Your task to perform on an android device: turn on the 12-hour format for clock Image 0: 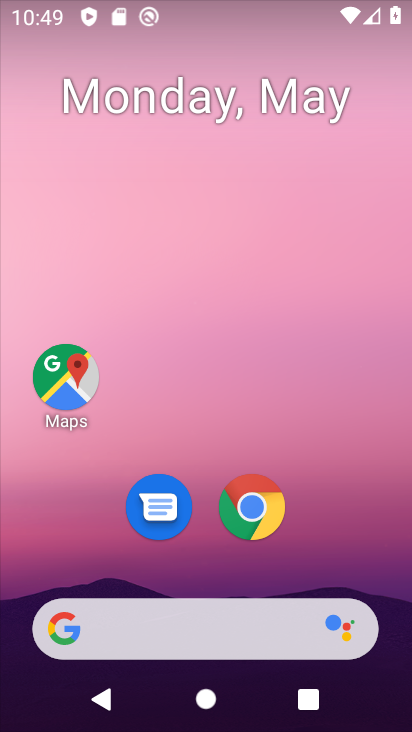
Step 0: drag from (373, 537) to (366, 208)
Your task to perform on an android device: turn on the 12-hour format for clock Image 1: 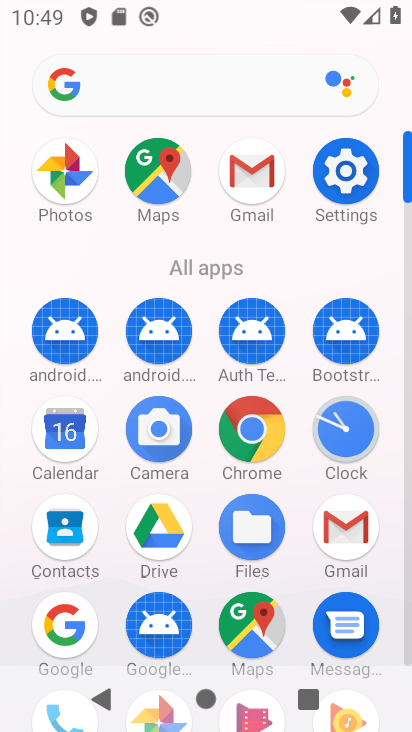
Step 1: click (342, 434)
Your task to perform on an android device: turn on the 12-hour format for clock Image 2: 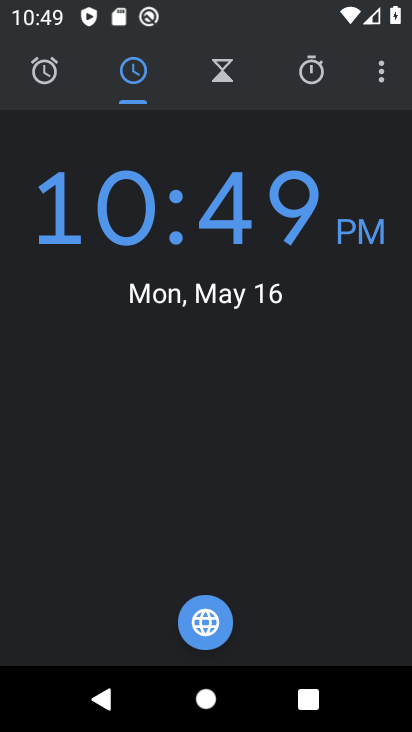
Step 2: click (382, 68)
Your task to perform on an android device: turn on the 12-hour format for clock Image 3: 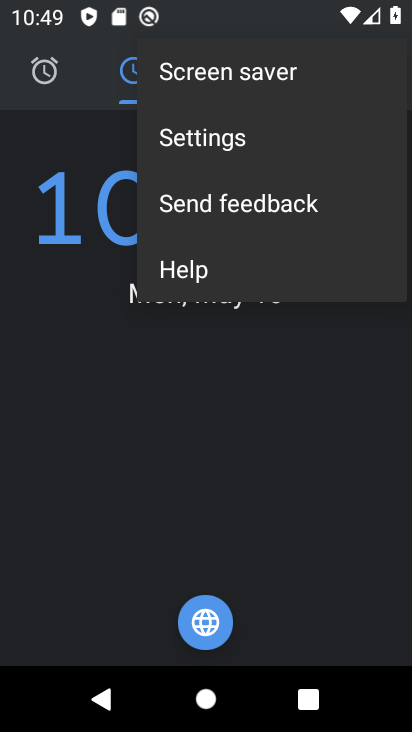
Step 3: click (249, 149)
Your task to perform on an android device: turn on the 12-hour format for clock Image 4: 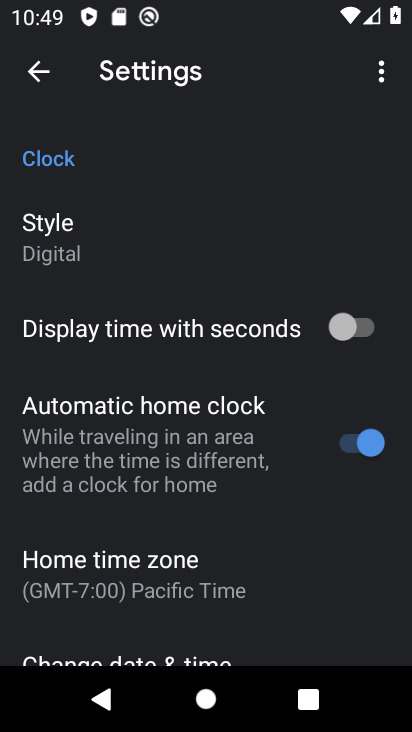
Step 4: drag from (252, 584) to (279, 238)
Your task to perform on an android device: turn on the 12-hour format for clock Image 5: 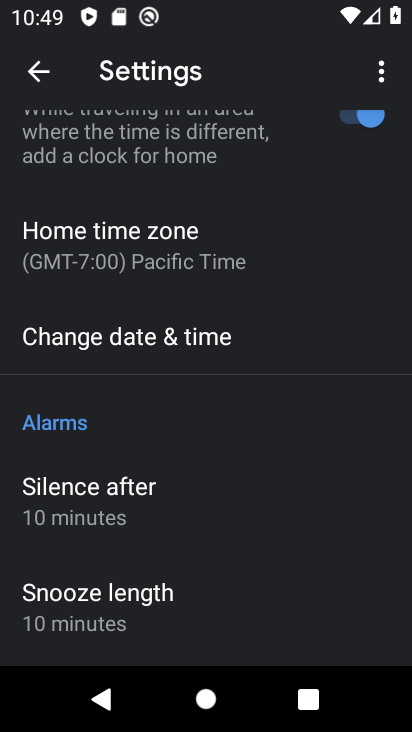
Step 5: click (227, 335)
Your task to perform on an android device: turn on the 12-hour format for clock Image 6: 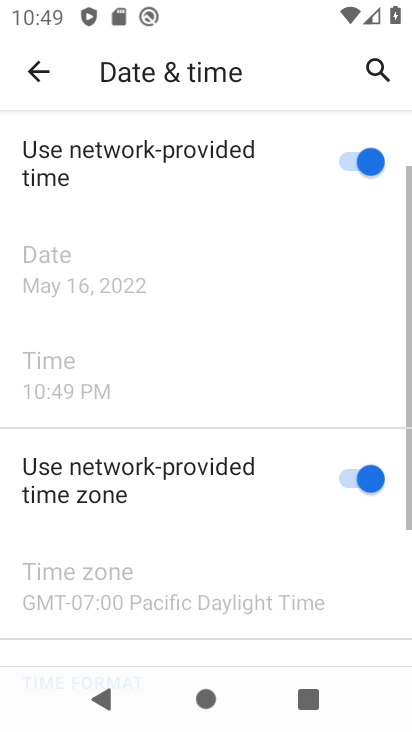
Step 6: task complete